Your task to perform on an android device: add a label to a message in the gmail app Image 0: 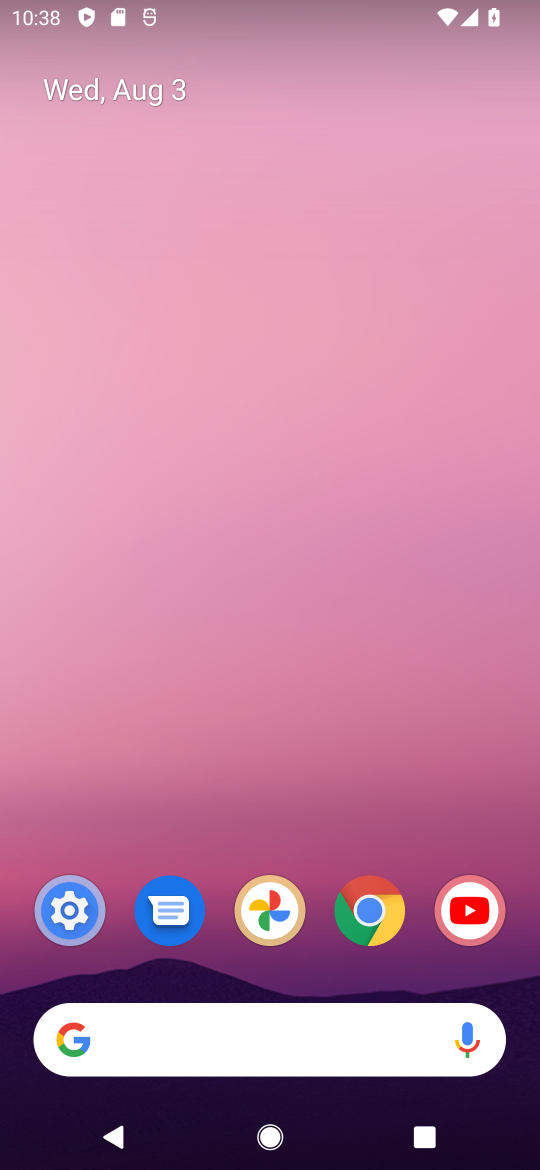
Step 0: press home button
Your task to perform on an android device: add a label to a message in the gmail app Image 1: 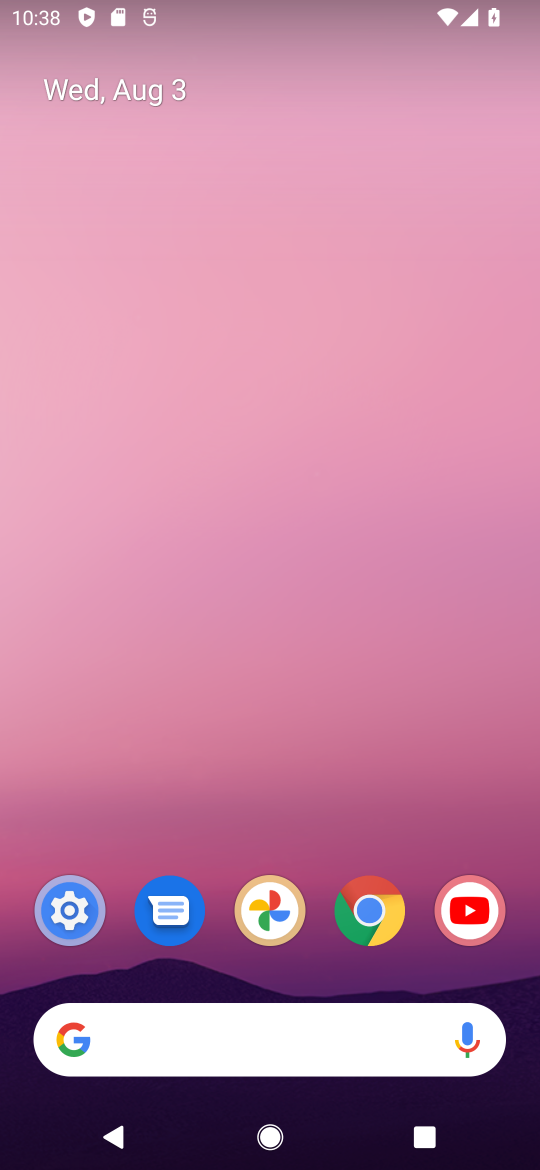
Step 1: drag from (318, 971) to (366, 4)
Your task to perform on an android device: add a label to a message in the gmail app Image 2: 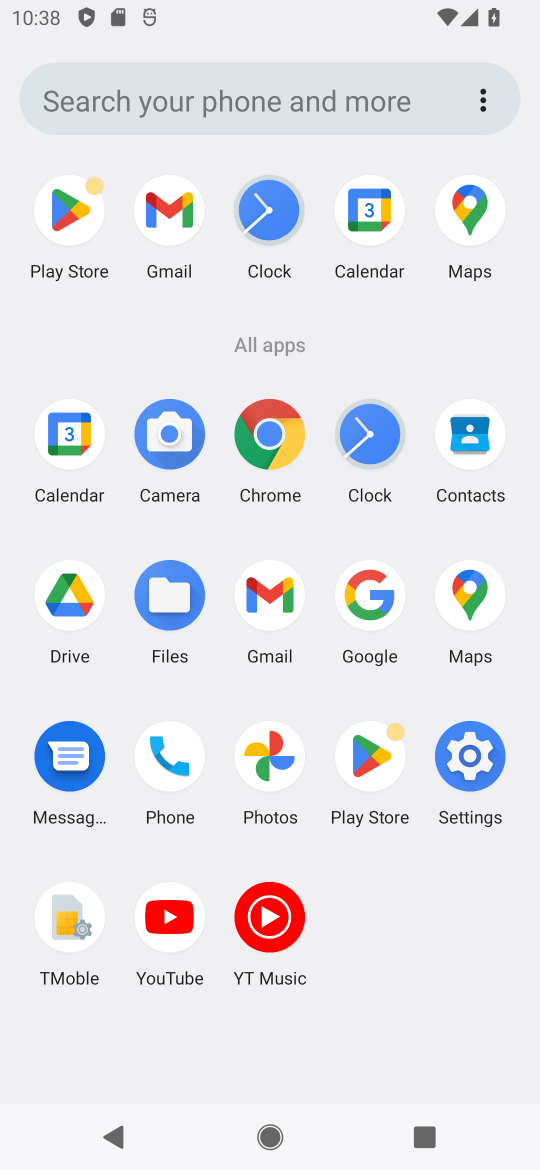
Step 2: click (266, 580)
Your task to perform on an android device: add a label to a message in the gmail app Image 3: 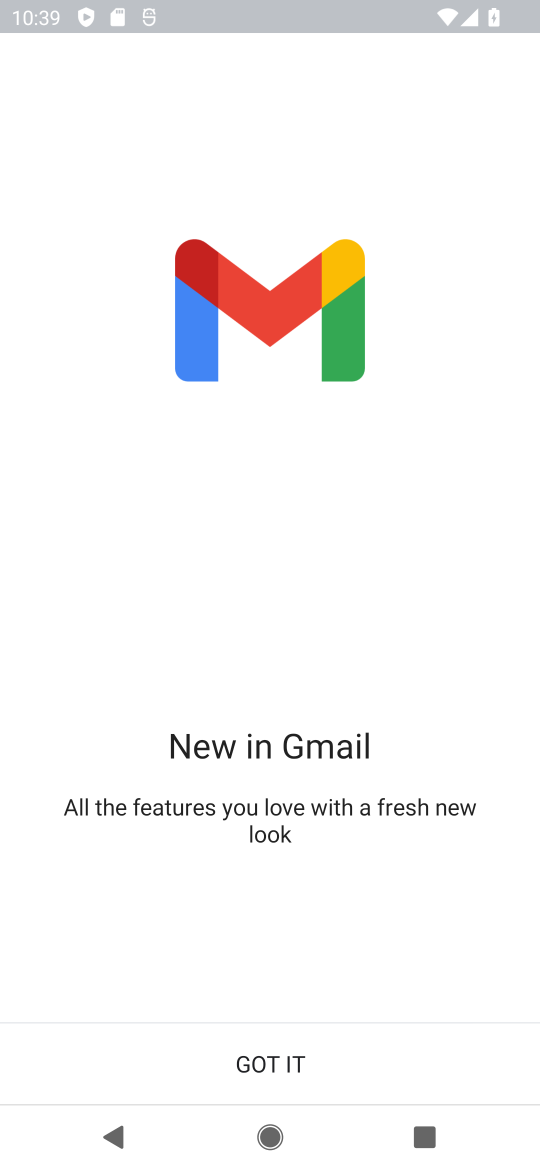
Step 3: click (268, 1069)
Your task to perform on an android device: add a label to a message in the gmail app Image 4: 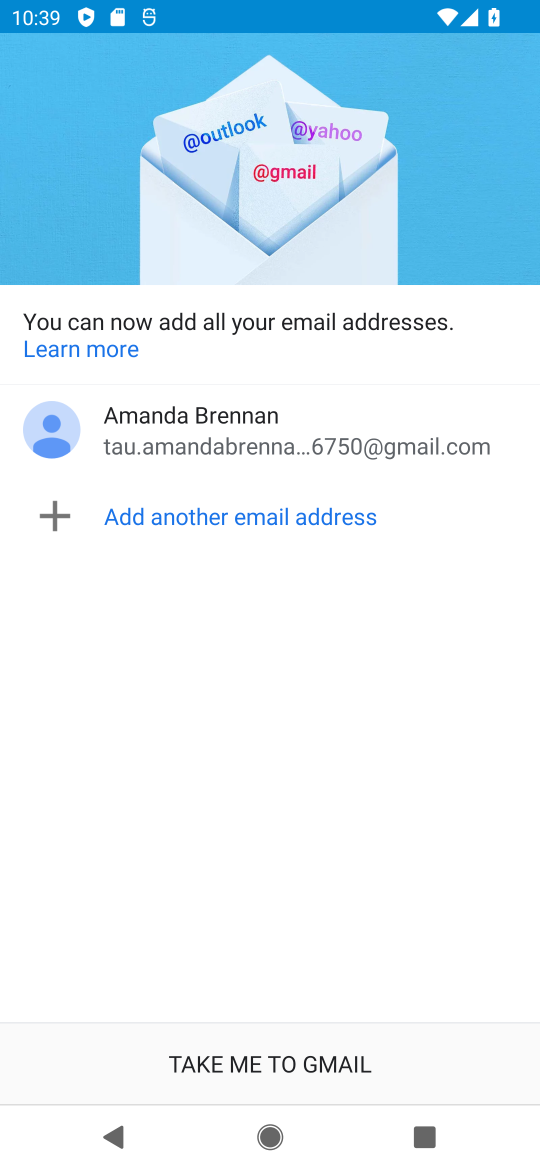
Step 4: click (260, 1075)
Your task to perform on an android device: add a label to a message in the gmail app Image 5: 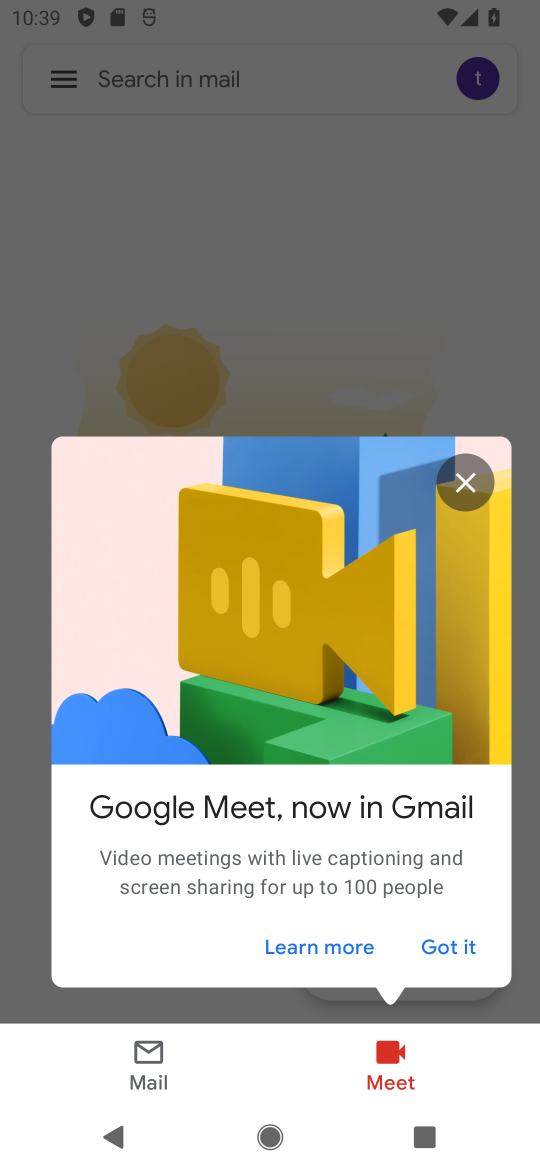
Step 5: click (437, 941)
Your task to perform on an android device: add a label to a message in the gmail app Image 6: 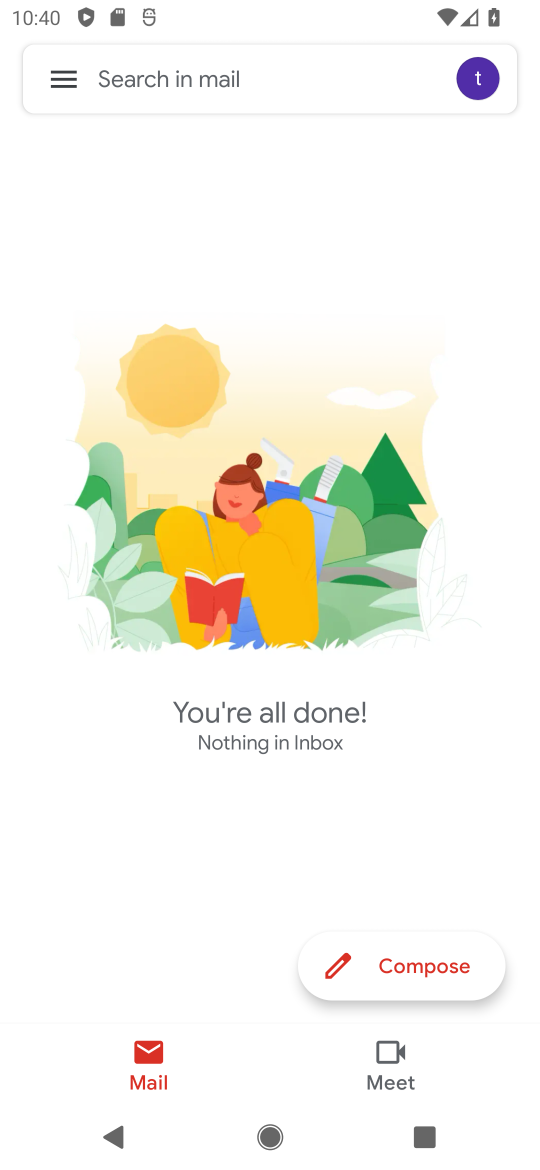
Step 6: task complete